Your task to perform on an android device: Go to calendar. Show me events next week Image 0: 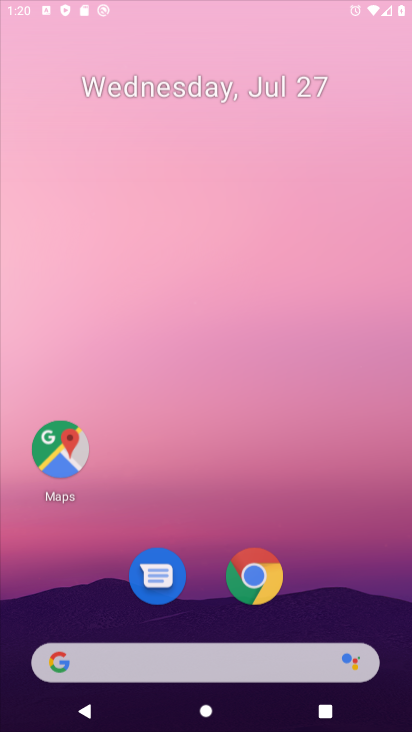
Step 0: drag from (246, 658) to (254, 118)
Your task to perform on an android device: Go to calendar. Show me events next week Image 1: 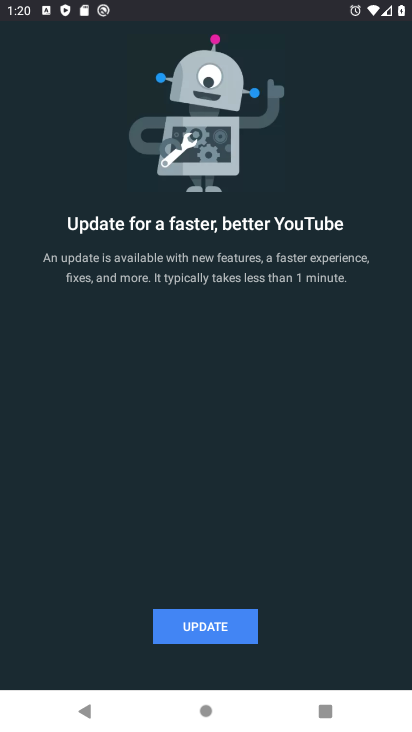
Step 1: press home button
Your task to perform on an android device: Go to calendar. Show me events next week Image 2: 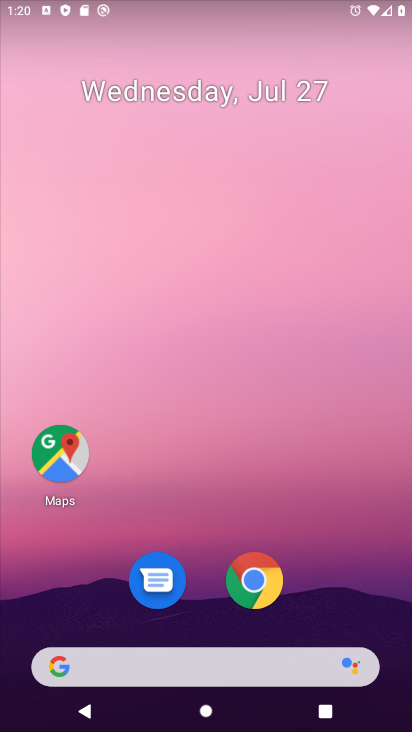
Step 2: drag from (275, 703) to (344, 179)
Your task to perform on an android device: Go to calendar. Show me events next week Image 3: 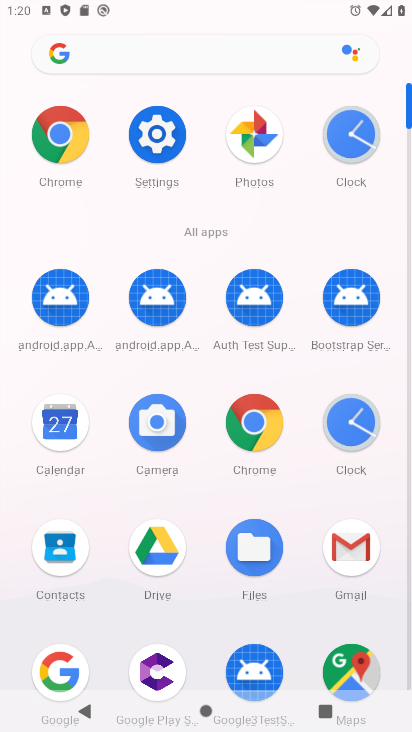
Step 3: click (57, 433)
Your task to perform on an android device: Go to calendar. Show me events next week Image 4: 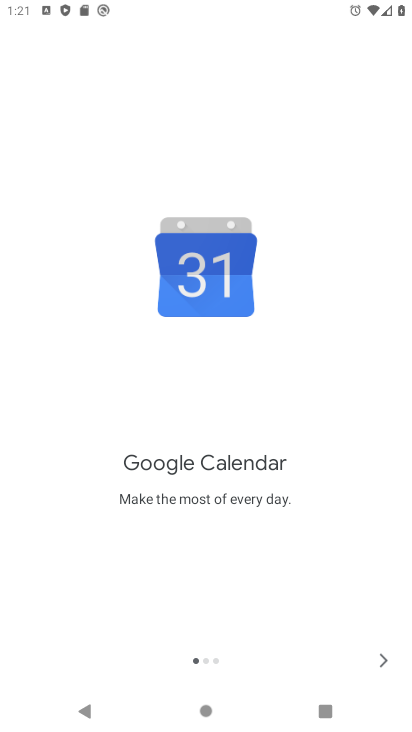
Step 4: click (361, 669)
Your task to perform on an android device: Go to calendar. Show me events next week Image 5: 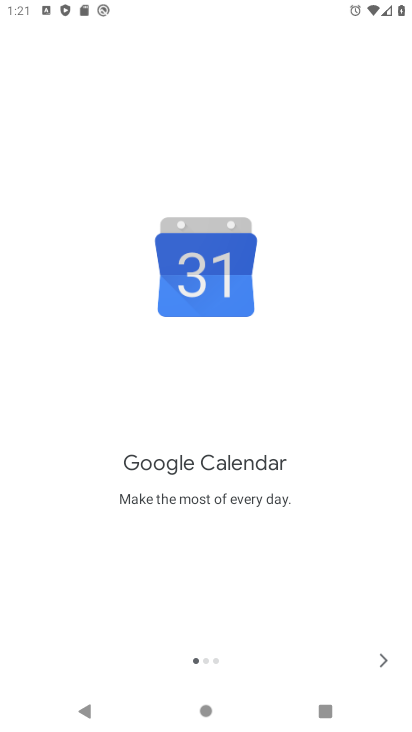
Step 5: click (370, 660)
Your task to perform on an android device: Go to calendar. Show me events next week Image 6: 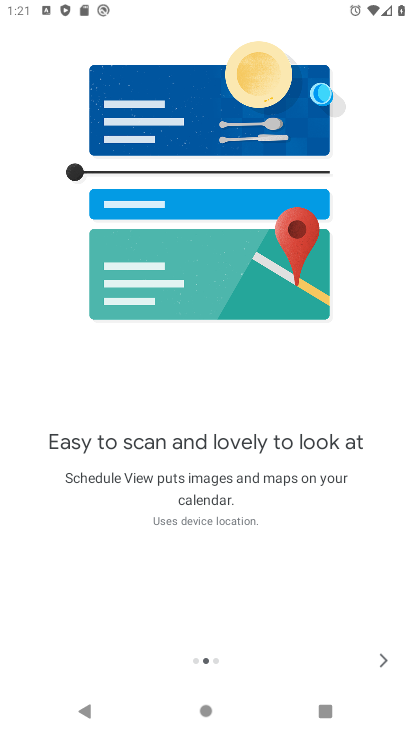
Step 6: click (367, 659)
Your task to perform on an android device: Go to calendar. Show me events next week Image 7: 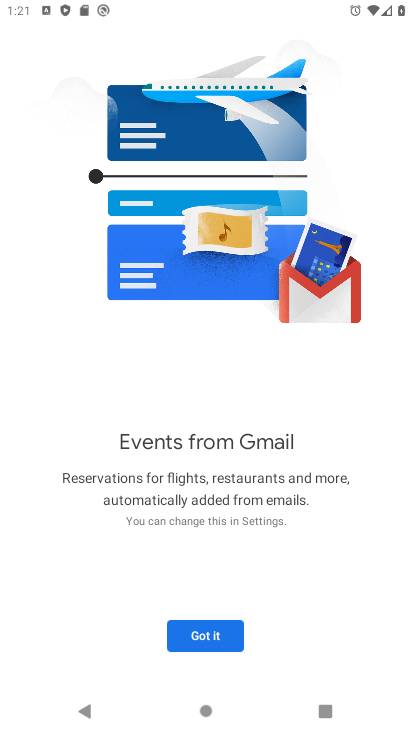
Step 7: click (233, 635)
Your task to perform on an android device: Go to calendar. Show me events next week Image 8: 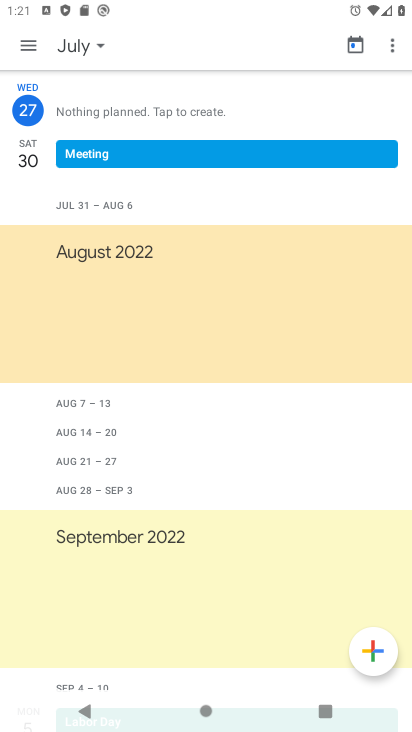
Step 8: click (24, 58)
Your task to perform on an android device: Go to calendar. Show me events next week Image 9: 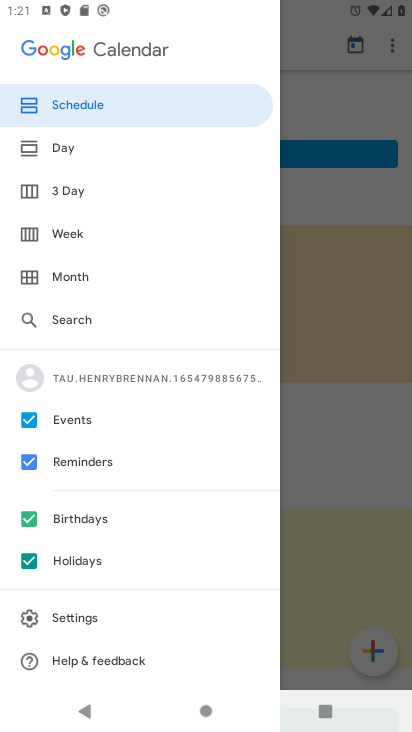
Step 9: click (71, 290)
Your task to perform on an android device: Go to calendar. Show me events next week Image 10: 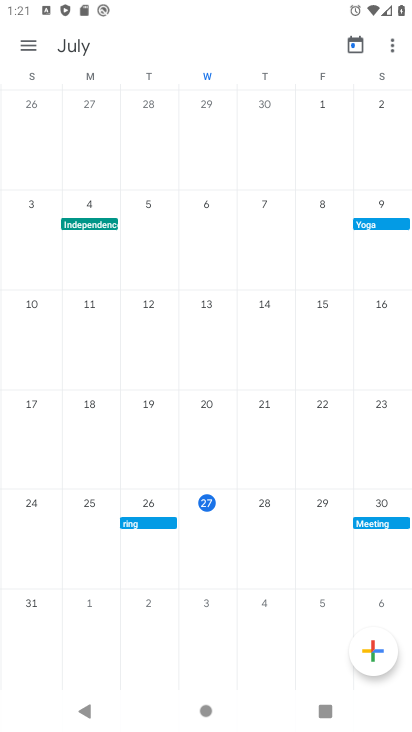
Step 10: click (97, 622)
Your task to perform on an android device: Go to calendar. Show me events next week Image 11: 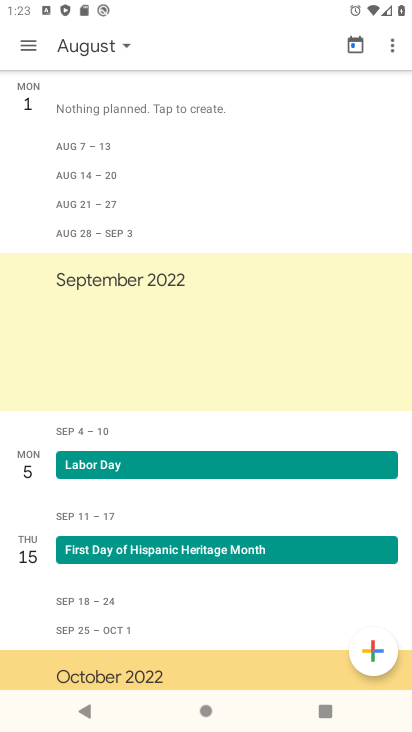
Step 11: task complete